Your task to perform on an android device: Go to Wikipedia Image 0: 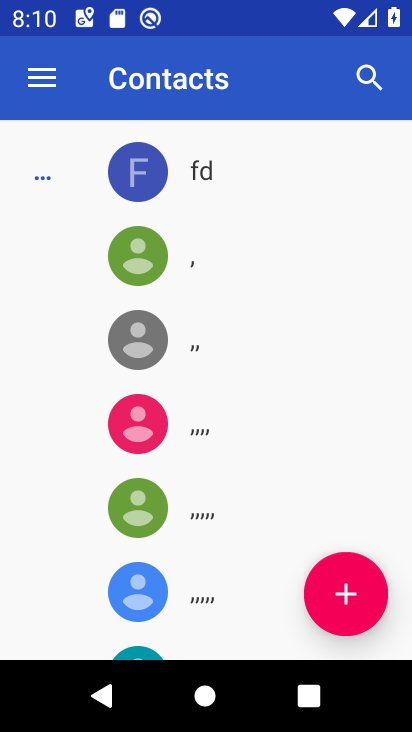
Step 0: press back button
Your task to perform on an android device: Go to Wikipedia Image 1: 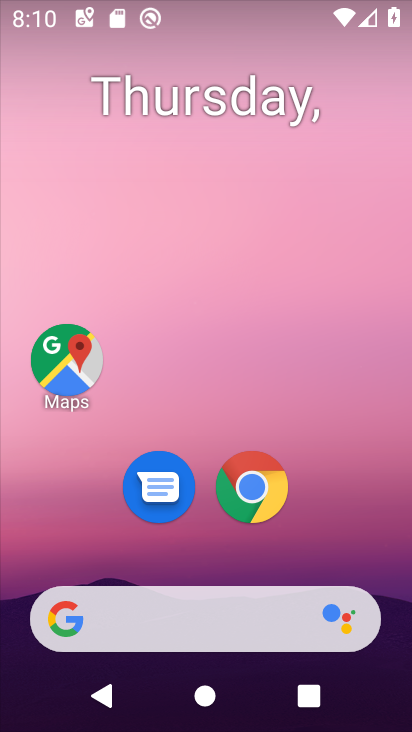
Step 1: click (266, 490)
Your task to perform on an android device: Go to Wikipedia Image 2: 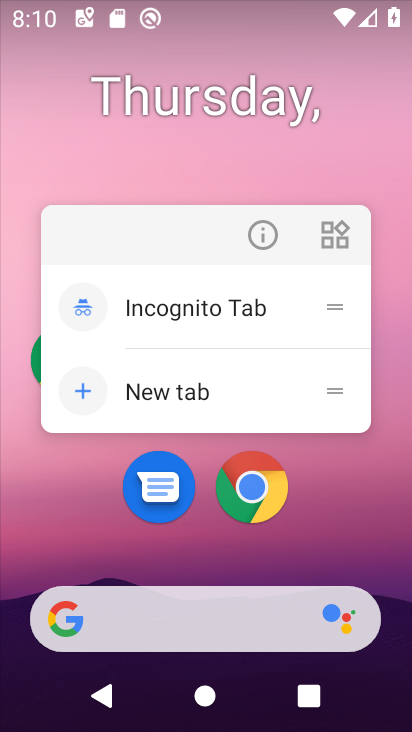
Step 2: click (255, 478)
Your task to perform on an android device: Go to Wikipedia Image 3: 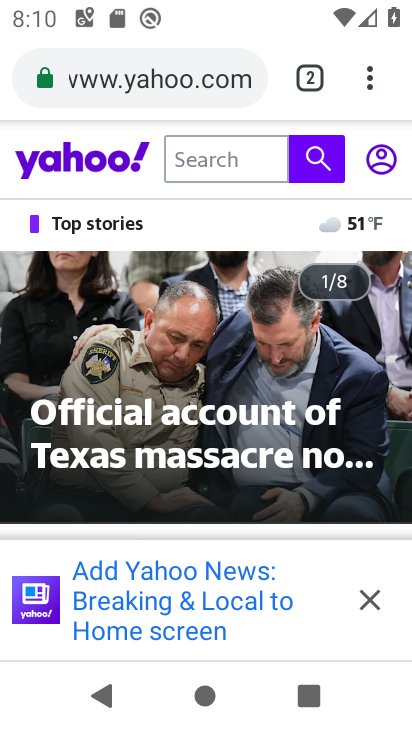
Step 3: click (308, 85)
Your task to perform on an android device: Go to Wikipedia Image 4: 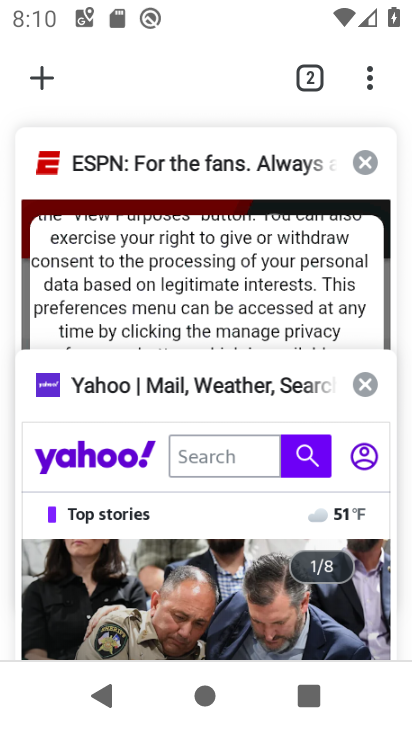
Step 4: click (26, 86)
Your task to perform on an android device: Go to Wikipedia Image 5: 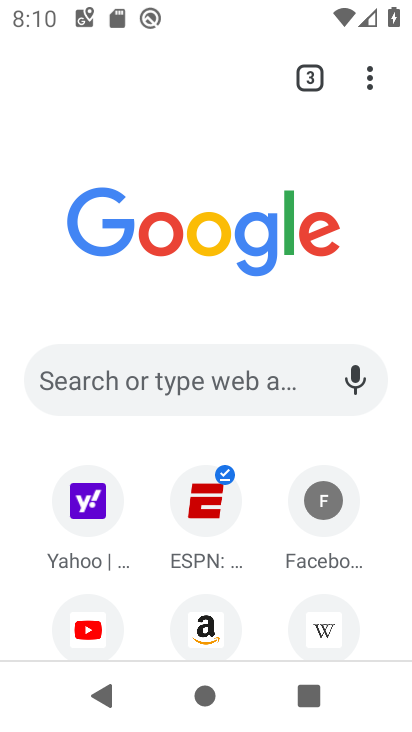
Step 5: click (318, 625)
Your task to perform on an android device: Go to Wikipedia Image 6: 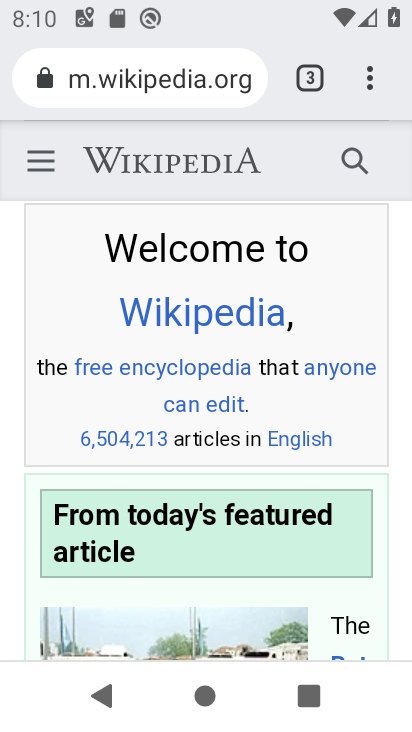
Step 6: task complete